Your task to perform on an android device: turn on javascript in the chrome app Image 0: 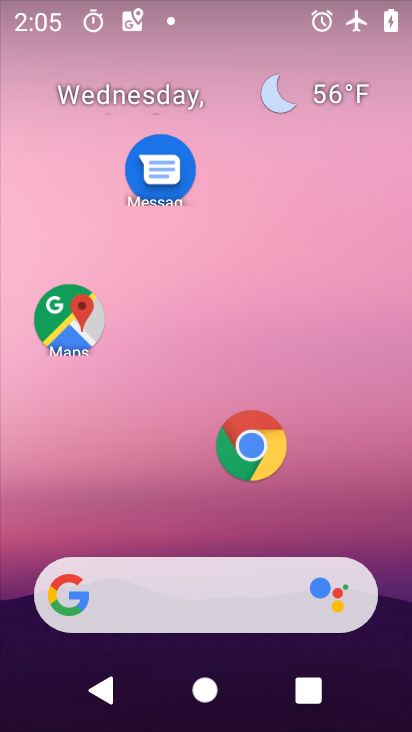
Step 0: drag from (242, 522) to (280, 86)
Your task to perform on an android device: turn on javascript in the chrome app Image 1: 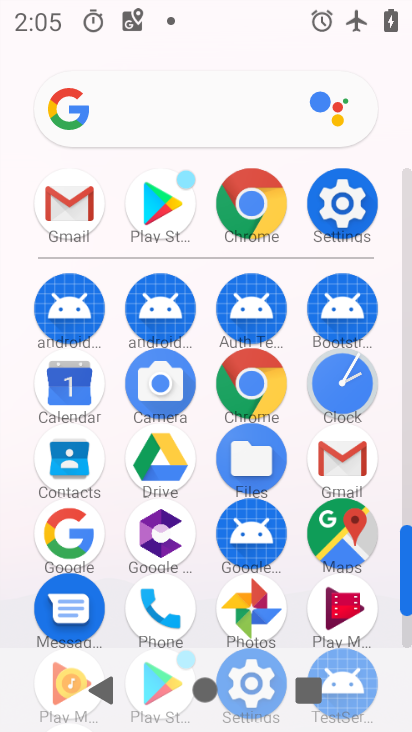
Step 1: click (255, 397)
Your task to perform on an android device: turn on javascript in the chrome app Image 2: 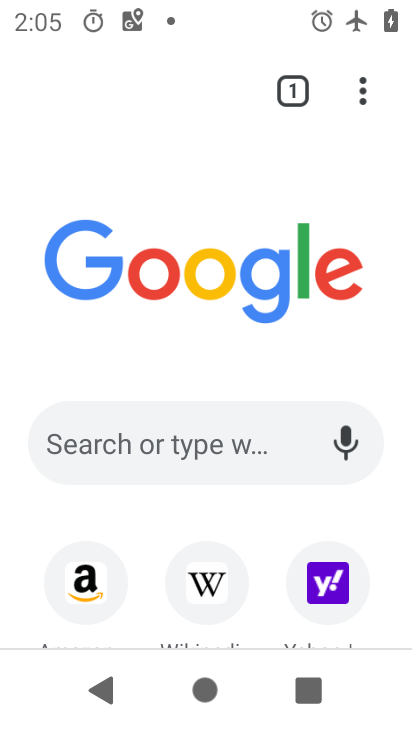
Step 2: click (360, 105)
Your task to perform on an android device: turn on javascript in the chrome app Image 3: 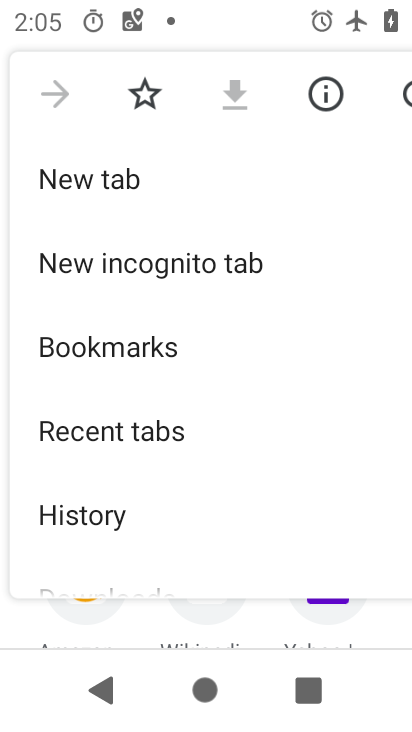
Step 3: drag from (242, 476) to (222, 179)
Your task to perform on an android device: turn on javascript in the chrome app Image 4: 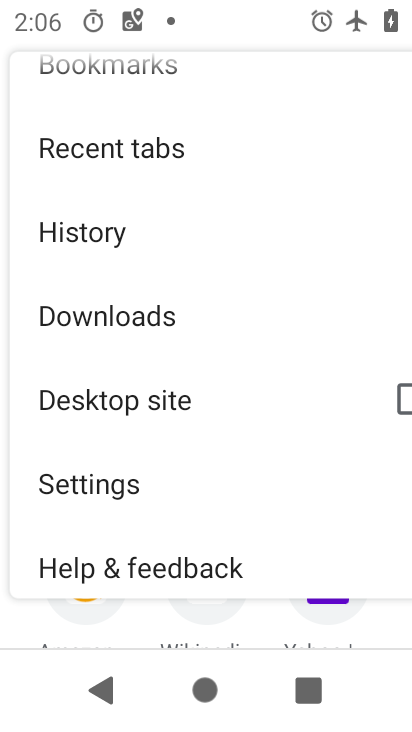
Step 4: click (136, 488)
Your task to perform on an android device: turn on javascript in the chrome app Image 5: 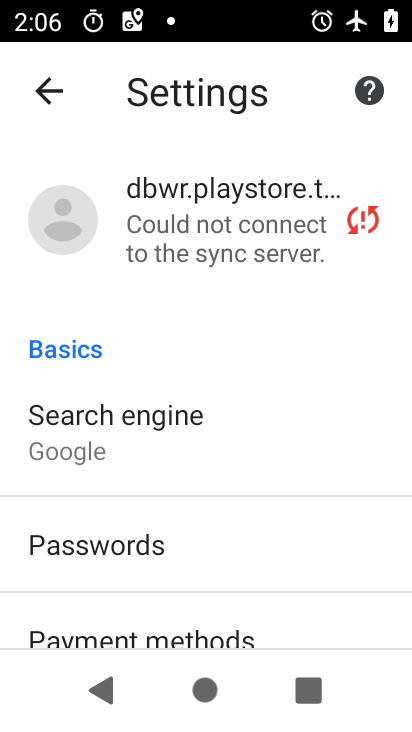
Step 5: drag from (110, 610) to (155, 166)
Your task to perform on an android device: turn on javascript in the chrome app Image 6: 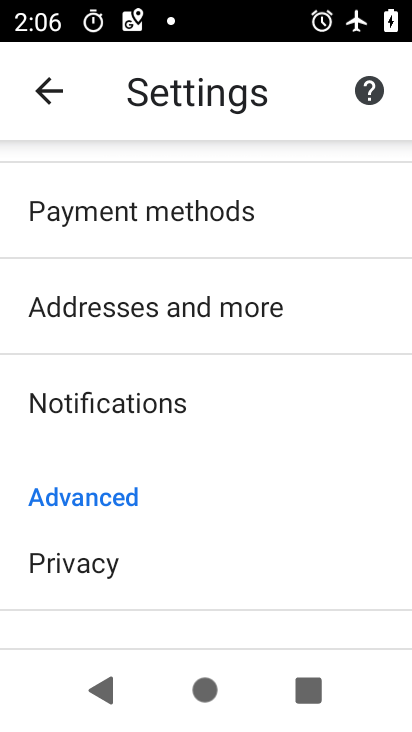
Step 6: drag from (171, 547) to (199, 260)
Your task to perform on an android device: turn on javascript in the chrome app Image 7: 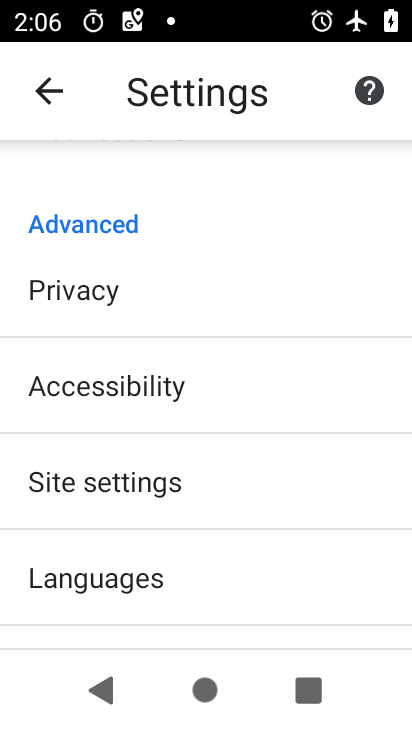
Step 7: click (164, 498)
Your task to perform on an android device: turn on javascript in the chrome app Image 8: 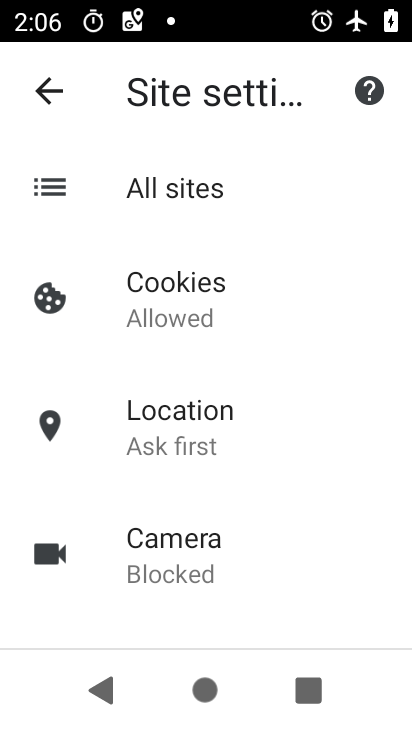
Step 8: drag from (202, 566) to (242, 220)
Your task to perform on an android device: turn on javascript in the chrome app Image 9: 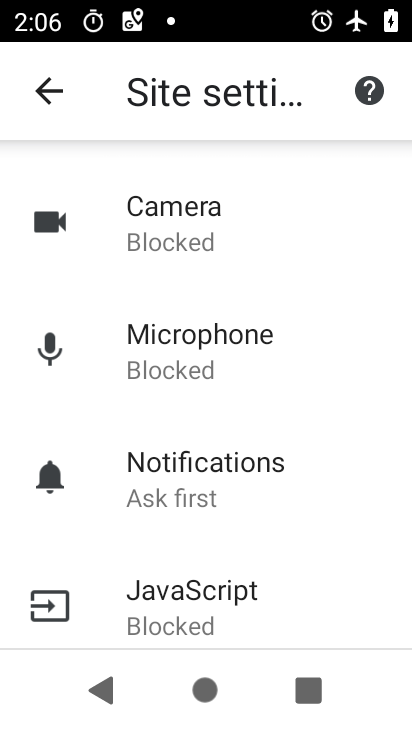
Step 9: click (205, 612)
Your task to perform on an android device: turn on javascript in the chrome app Image 10: 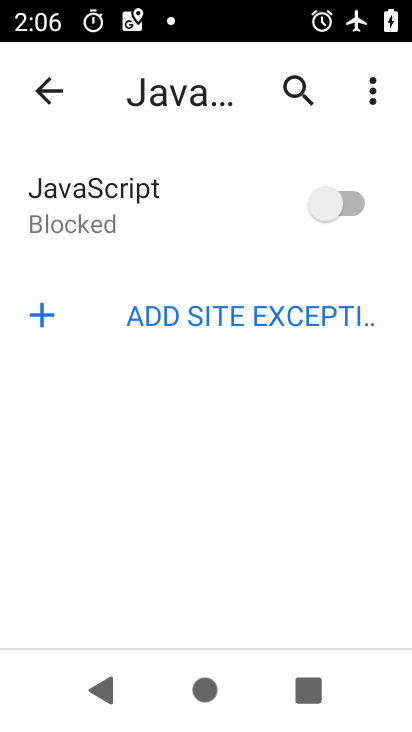
Step 10: click (342, 205)
Your task to perform on an android device: turn on javascript in the chrome app Image 11: 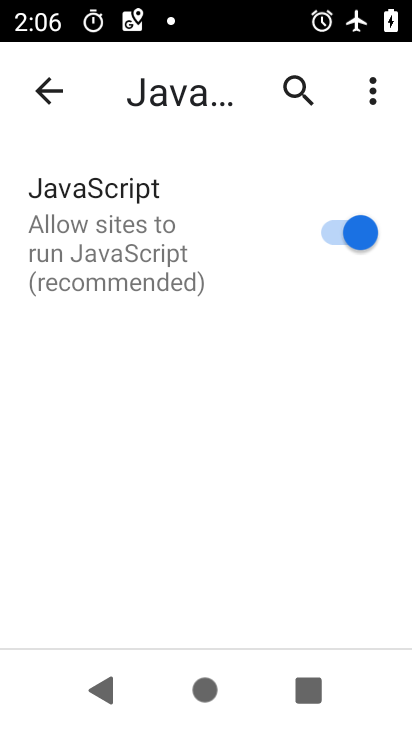
Step 11: task complete